Your task to perform on an android device: turn off data saver in the chrome app Image 0: 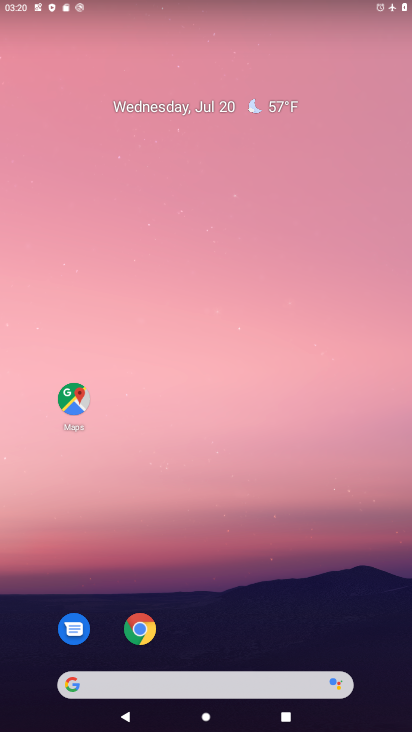
Step 0: click (142, 630)
Your task to perform on an android device: turn off data saver in the chrome app Image 1: 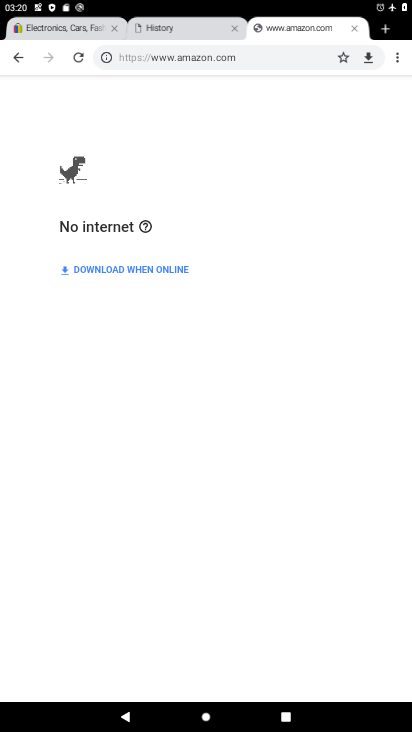
Step 1: click (397, 59)
Your task to perform on an android device: turn off data saver in the chrome app Image 2: 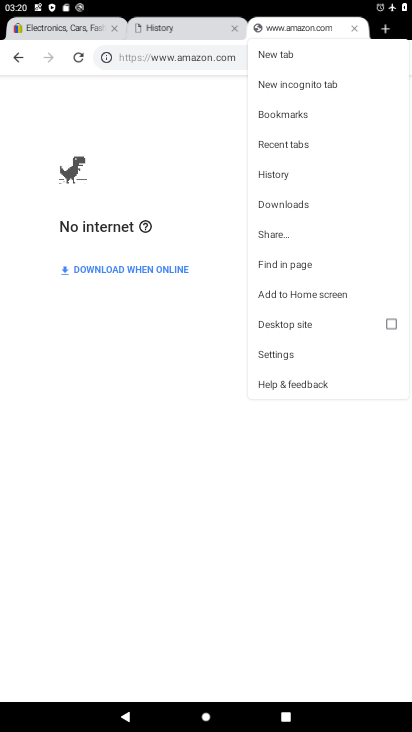
Step 2: click (288, 352)
Your task to perform on an android device: turn off data saver in the chrome app Image 3: 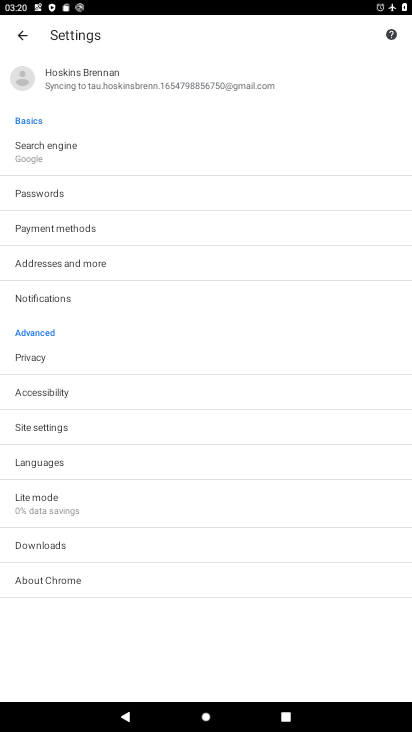
Step 3: click (42, 496)
Your task to perform on an android device: turn off data saver in the chrome app Image 4: 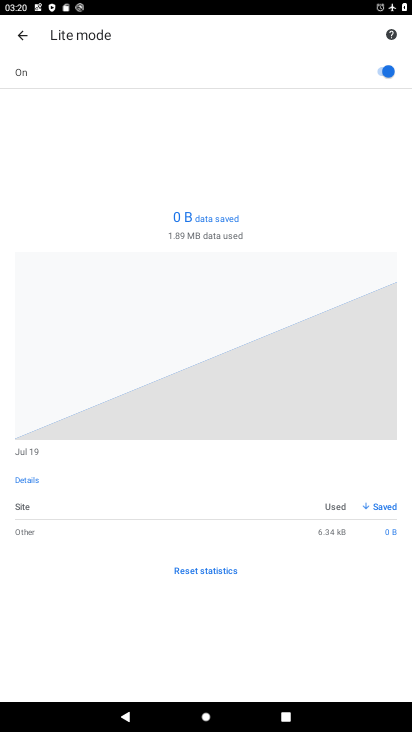
Step 4: click (381, 69)
Your task to perform on an android device: turn off data saver in the chrome app Image 5: 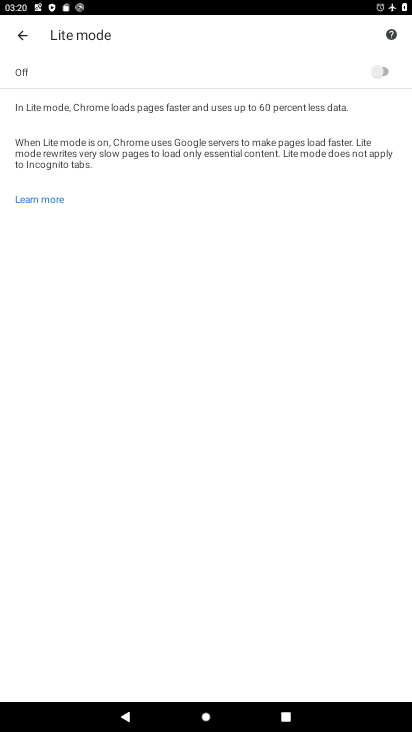
Step 5: task complete